Your task to perform on an android device: Go to accessibility settings Image 0: 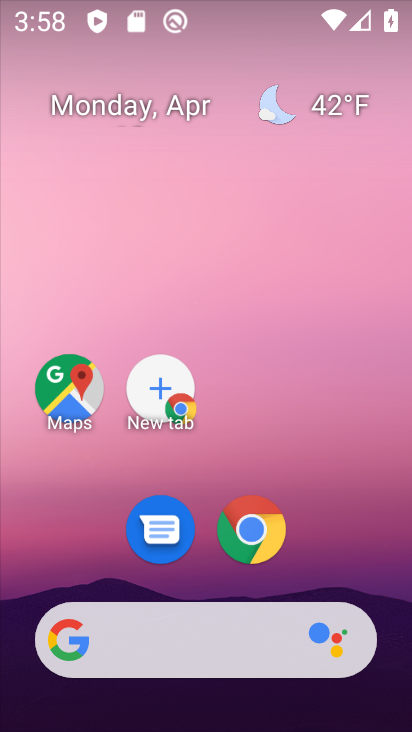
Step 0: click (74, 384)
Your task to perform on an android device: Go to accessibility settings Image 1: 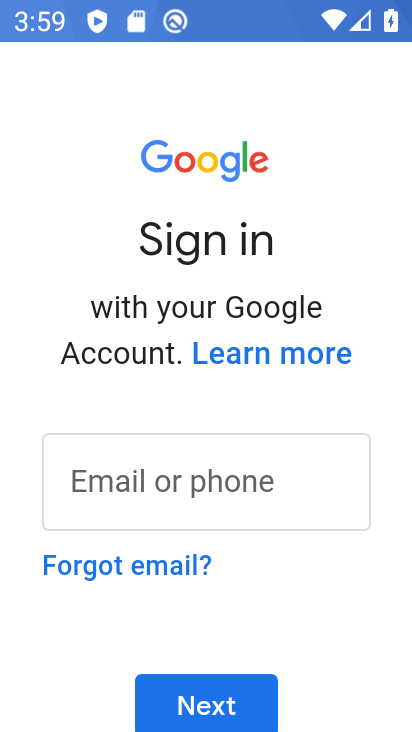
Step 1: drag from (264, 579) to (383, 0)
Your task to perform on an android device: Go to accessibility settings Image 2: 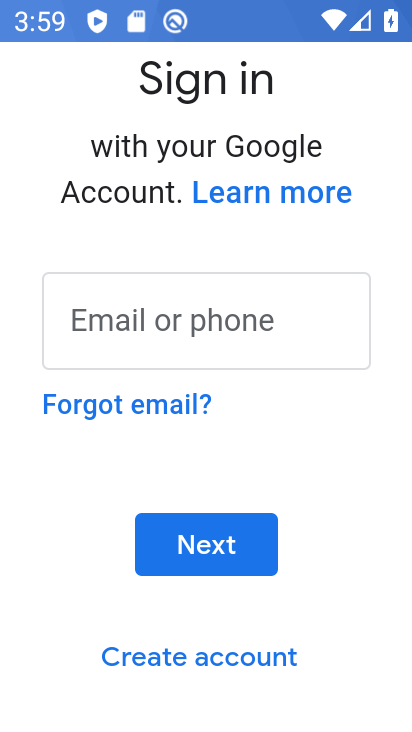
Step 2: press back button
Your task to perform on an android device: Go to accessibility settings Image 3: 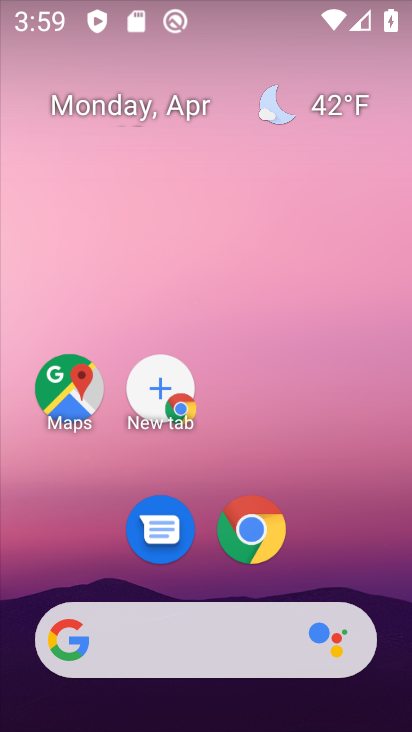
Step 3: drag from (199, 525) to (322, 8)
Your task to perform on an android device: Go to accessibility settings Image 4: 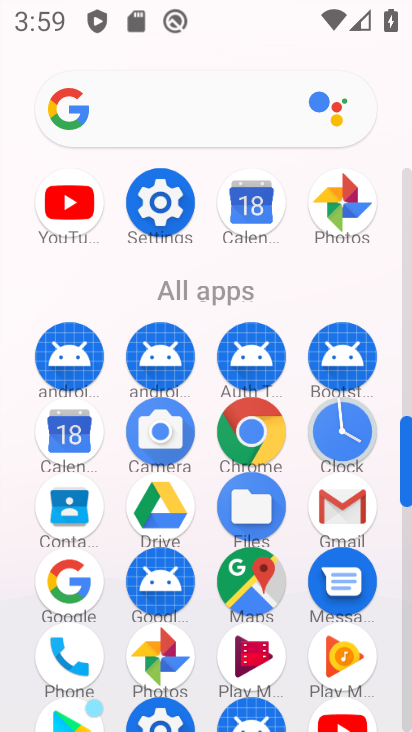
Step 4: click (160, 204)
Your task to perform on an android device: Go to accessibility settings Image 5: 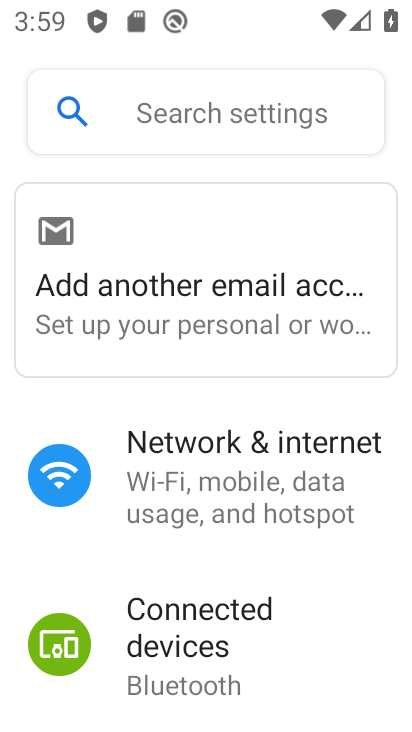
Step 5: drag from (239, 574) to (349, 35)
Your task to perform on an android device: Go to accessibility settings Image 6: 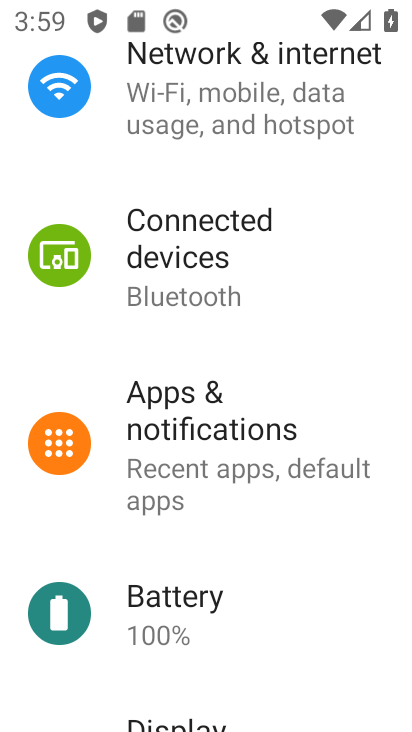
Step 6: drag from (219, 563) to (302, 102)
Your task to perform on an android device: Go to accessibility settings Image 7: 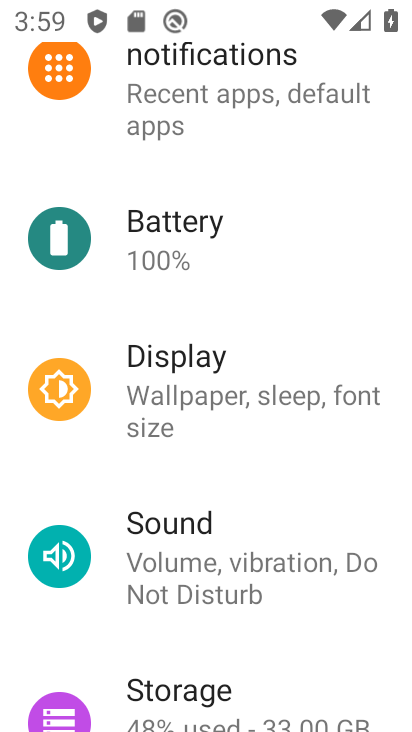
Step 7: drag from (202, 589) to (335, 57)
Your task to perform on an android device: Go to accessibility settings Image 8: 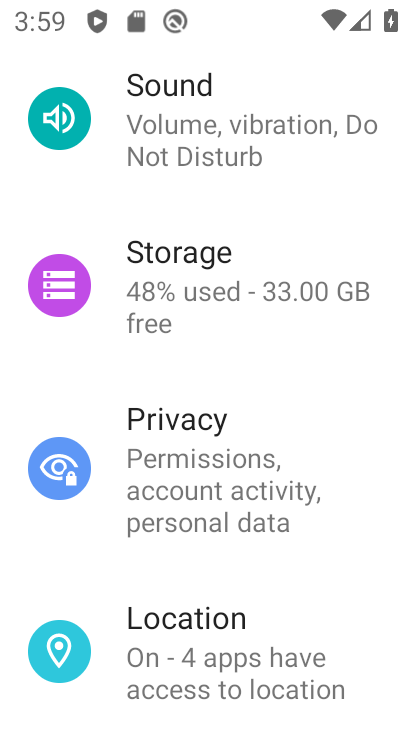
Step 8: drag from (188, 643) to (267, 88)
Your task to perform on an android device: Go to accessibility settings Image 9: 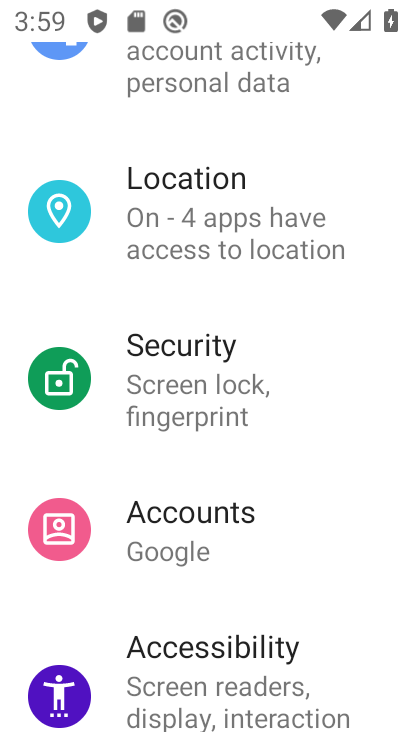
Step 9: drag from (202, 638) to (313, 137)
Your task to perform on an android device: Go to accessibility settings Image 10: 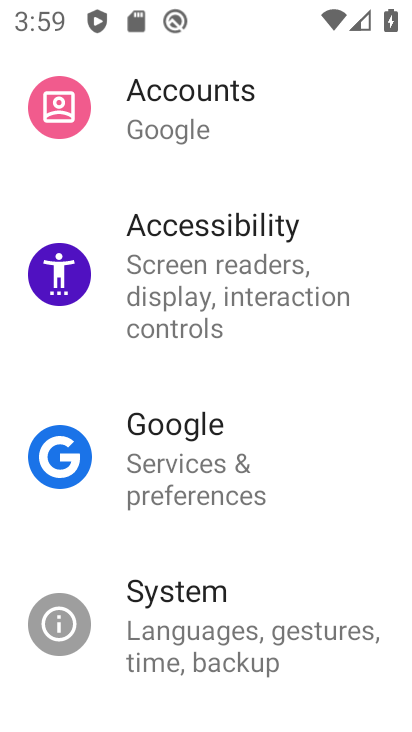
Step 10: click (177, 246)
Your task to perform on an android device: Go to accessibility settings Image 11: 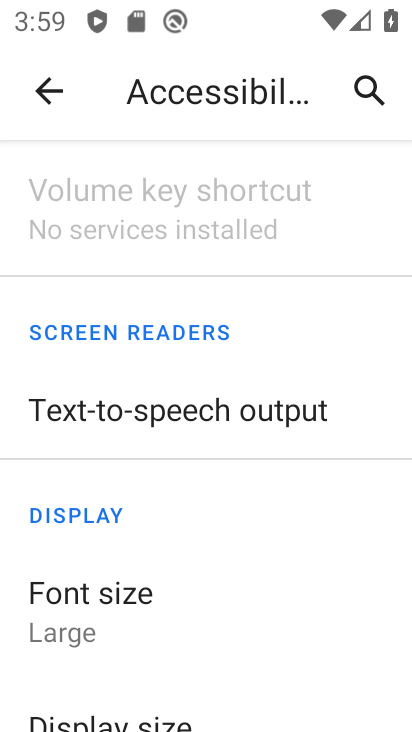
Step 11: task complete